Your task to perform on an android device: remove spam from my inbox in the gmail app Image 0: 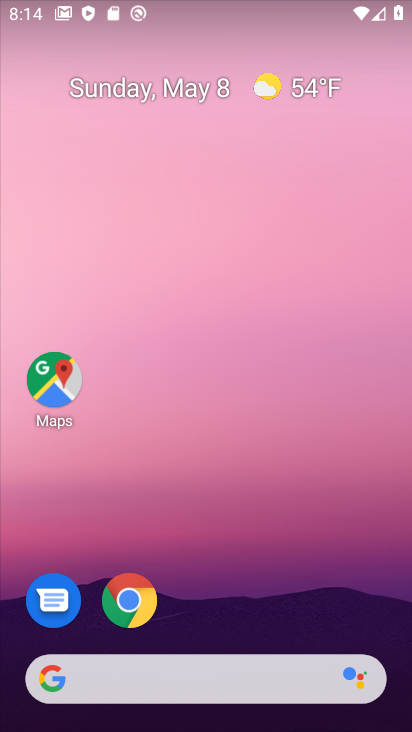
Step 0: drag from (204, 613) to (367, 289)
Your task to perform on an android device: remove spam from my inbox in the gmail app Image 1: 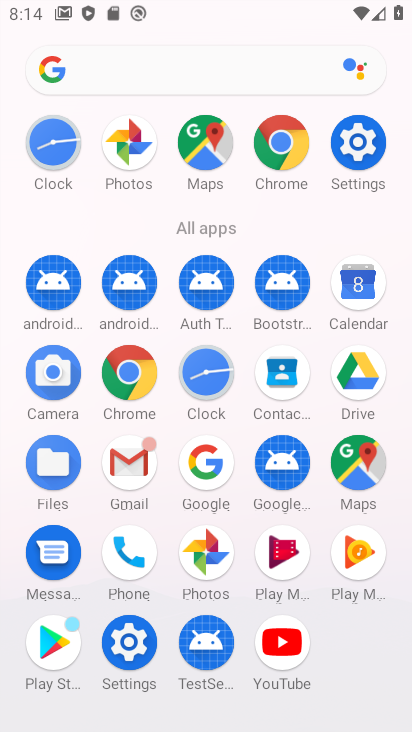
Step 1: click (136, 464)
Your task to perform on an android device: remove spam from my inbox in the gmail app Image 2: 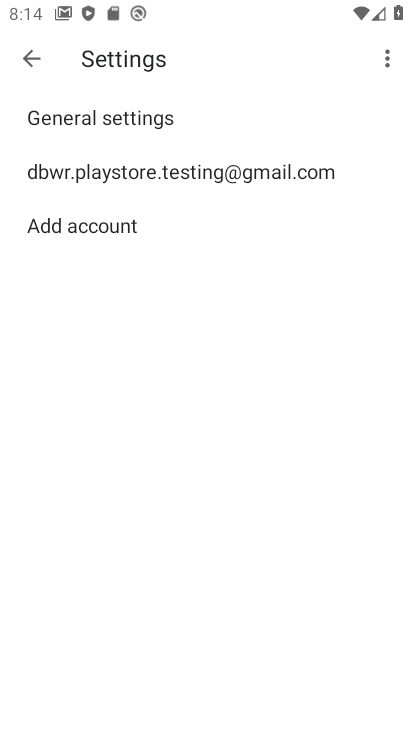
Step 2: click (19, 61)
Your task to perform on an android device: remove spam from my inbox in the gmail app Image 3: 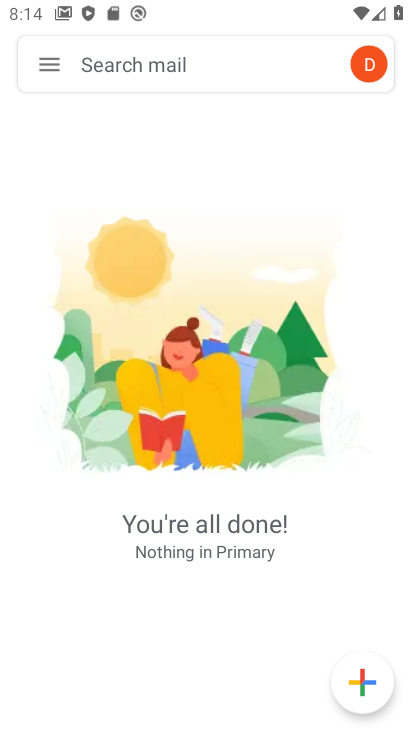
Step 3: click (19, 61)
Your task to perform on an android device: remove spam from my inbox in the gmail app Image 4: 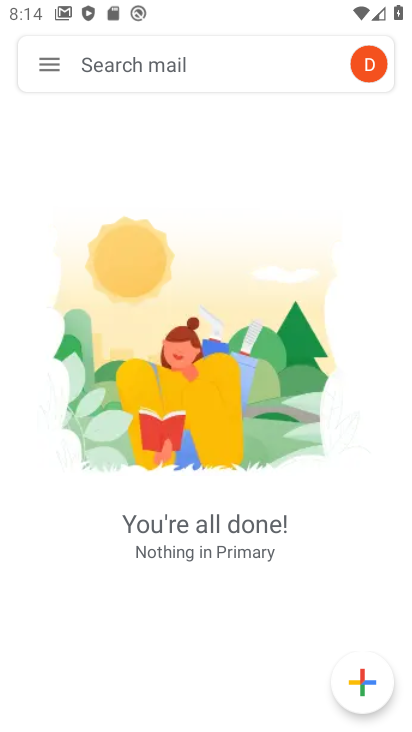
Step 4: click (52, 70)
Your task to perform on an android device: remove spam from my inbox in the gmail app Image 5: 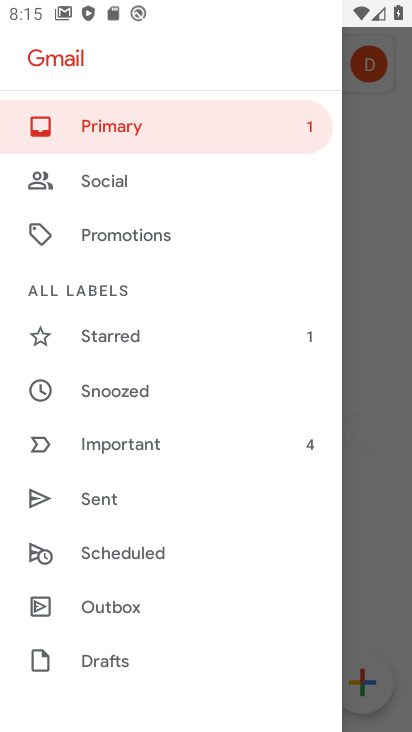
Step 5: drag from (192, 606) to (185, 69)
Your task to perform on an android device: remove spam from my inbox in the gmail app Image 6: 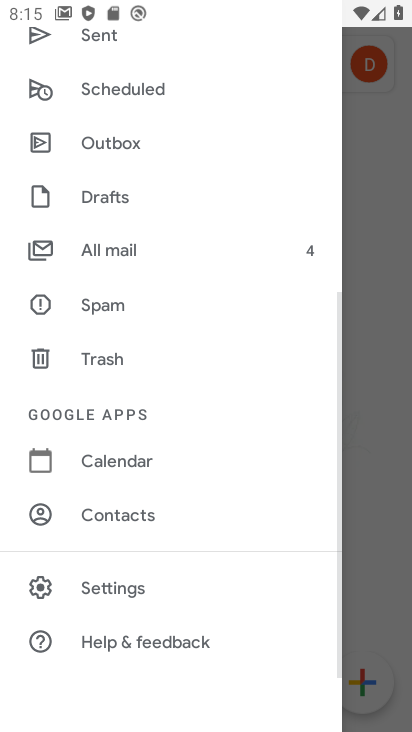
Step 6: click (181, 293)
Your task to perform on an android device: remove spam from my inbox in the gmail app Image 7: 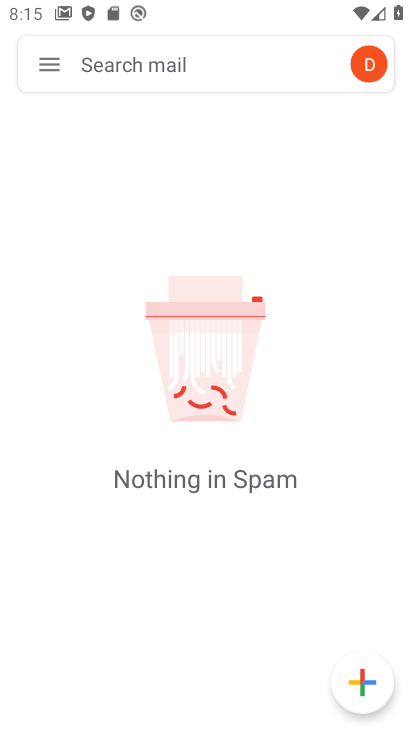
Step 7: task complete